Your task to perform on an android device: change alarm snooze length Image 0: 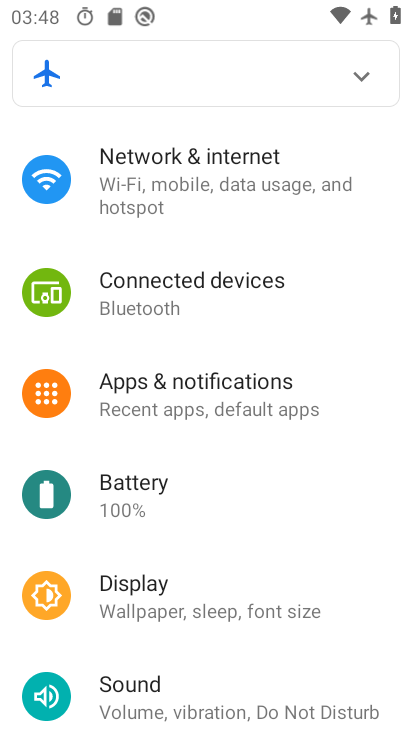
Step 0: press home button
Your task to perform on an android device: change alarm snooze length Image 1: 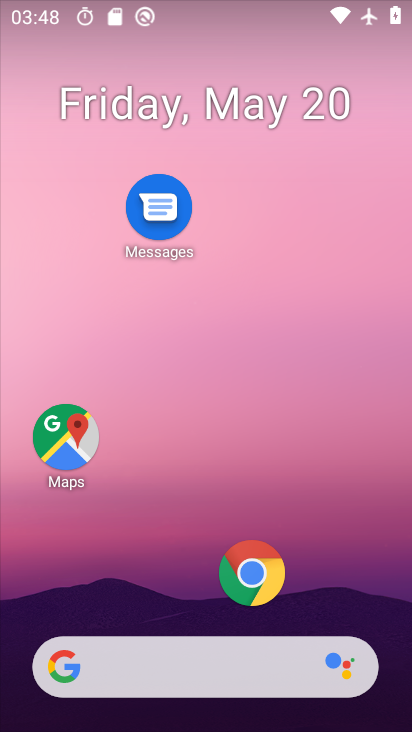
Step 1: drag from (194, 613) to (191, 251)
Your task to perform on an android device: change alarm snooze length Image 2: 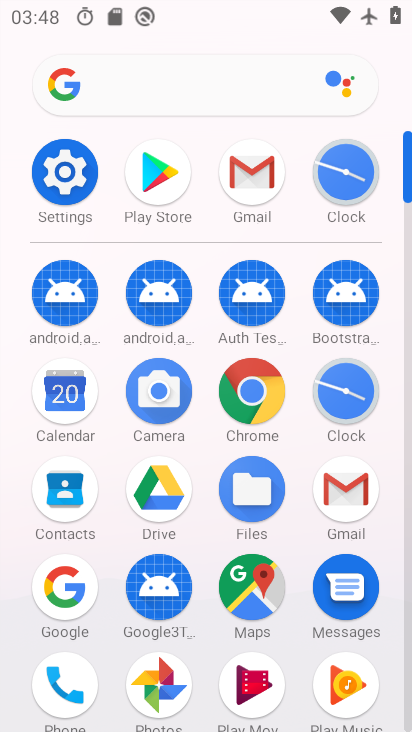
Step 2: click (335, 385)
Your task to perform on an android device: change alarm snooze length Image 3: 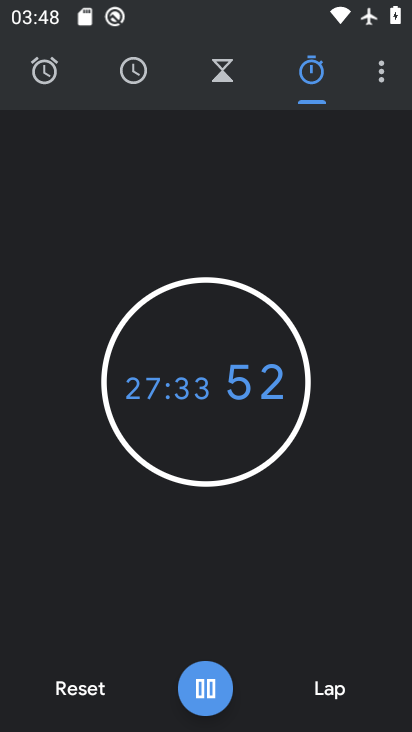
Step 3: click (373, 77)
Your task to perform on an android device: change alarm snooze length Image 4: 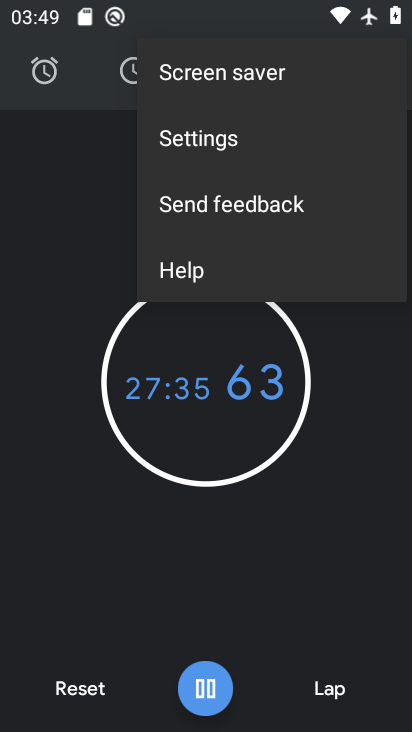
Step 4: click (333, 140)
Your task to perform on an android device: change alarm snooze length Image 5: 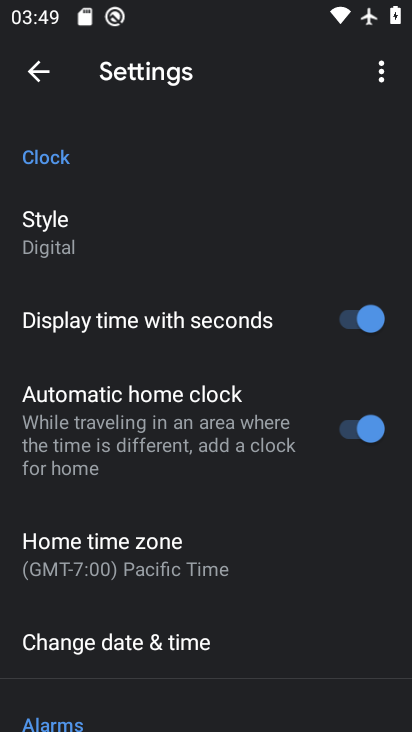
Step 5: drag from (243, 669) to (245, 163)
Your task to perform on an android device: change alarm snooze length Image 6: 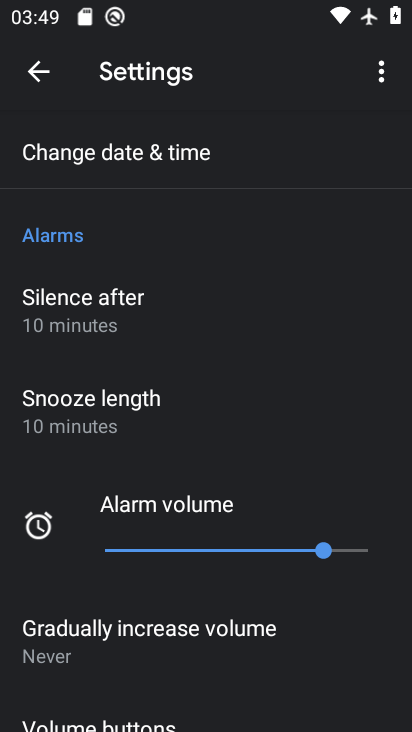
Step 6: click (155, 415)
Your task to perform on an android device: change alarm snooze length Image 7: 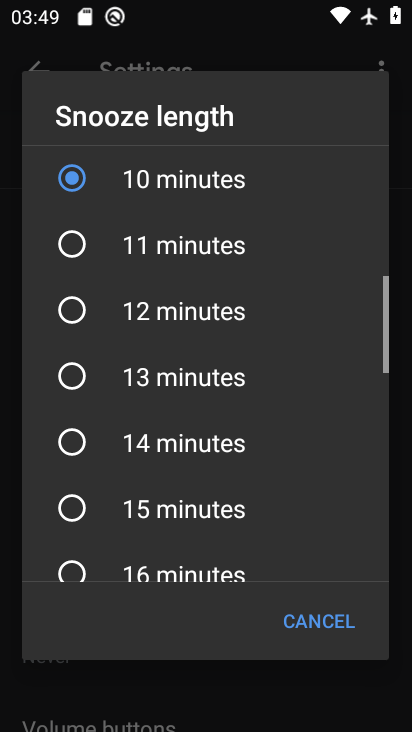
Step 7: click (162, 462)
Your task to perform on an android device: change alarm snooze length Image 8: 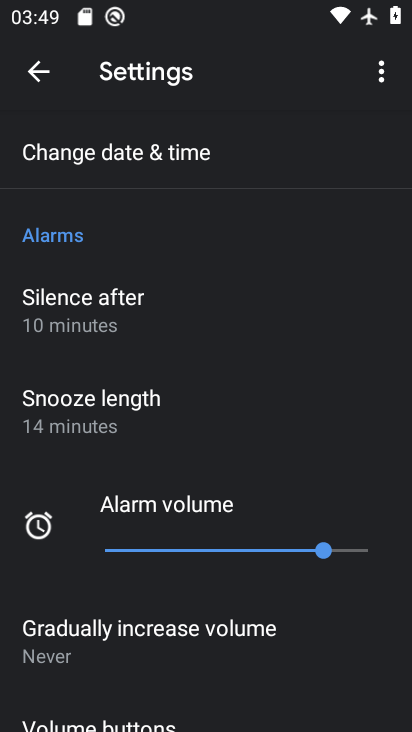
Step 8: task complete